Your task to perform on an android device: Open Maps and search for coffee Image 0: 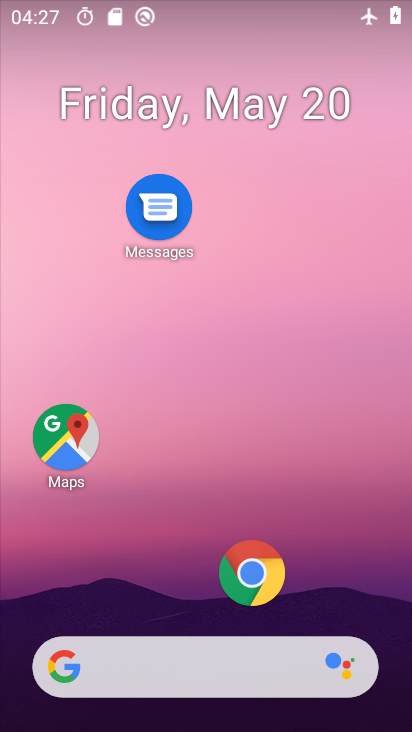
Step 0: click (254, 546)
Your task to perform on an android device: Open Maps and search for coffee Image 1: 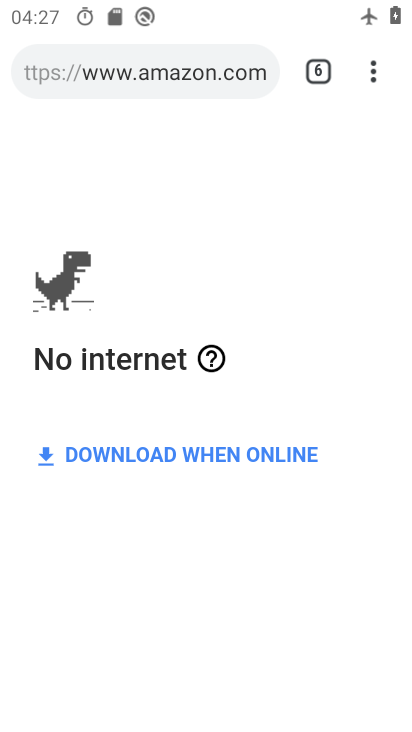
Step 1: press home button
Your task to perform on an android device: Open Maps and search for coffee Image 2: 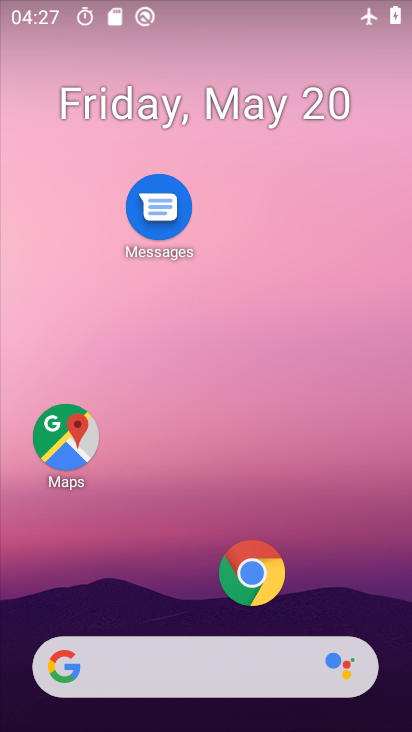
Step 2: click (63, 417)
Your task to perform on an android device: Open Maps and search for coffee Image 3: 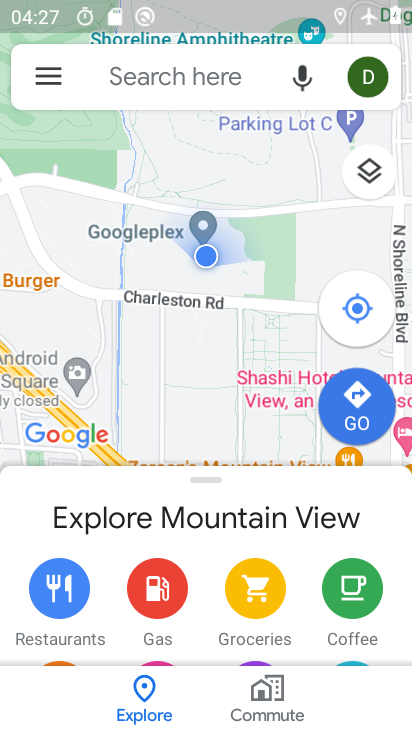
Step 3: click (148, 73)
Your task to perform on an android device: Open Maps and search for coffee Image 4: 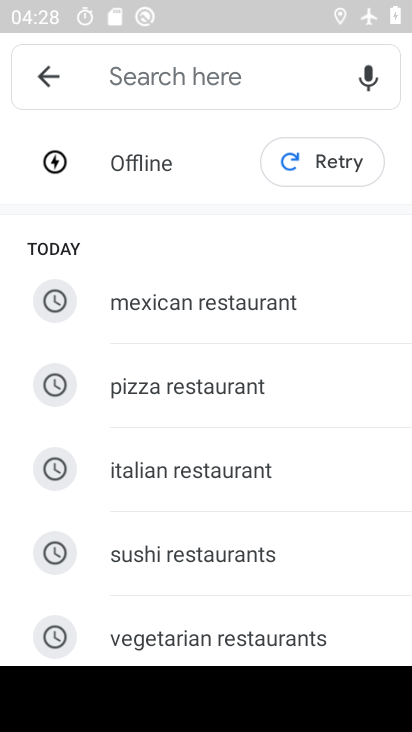
Step 4: type " coffee"
Your task to perform on an android device: Open Maps and search for coffee Image 5: 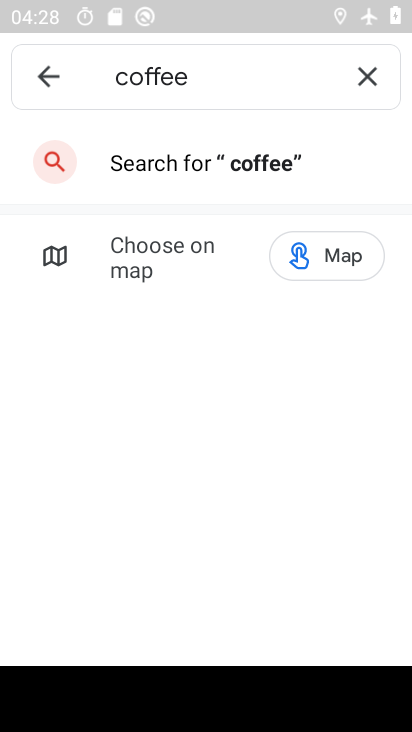
Step 5: task complete